Your task to perform on an android device: check storage Image 0: 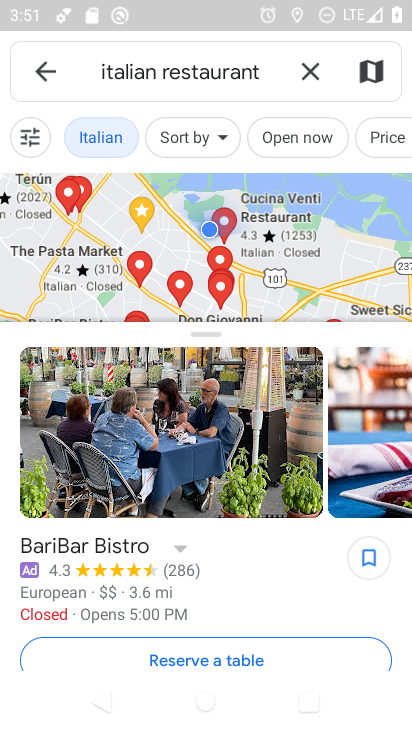
Step 0: press home button
Your task to perform on an android device: check storage Image 1: 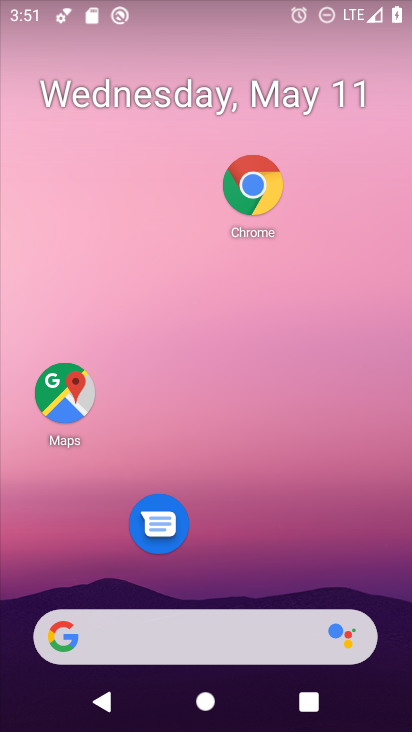
Step 1: drag from (267, 527) to (259, 103)
Your task to perform on an android device: check storage Image 2: 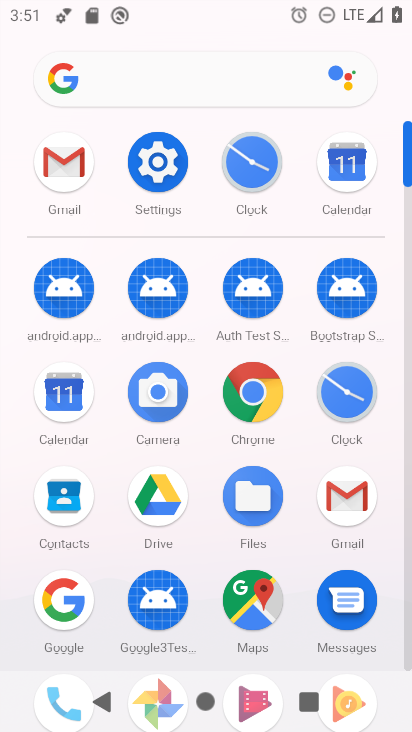
Step 2: click (164, 148)
Your task to perform on an android device: check storage Image 3: 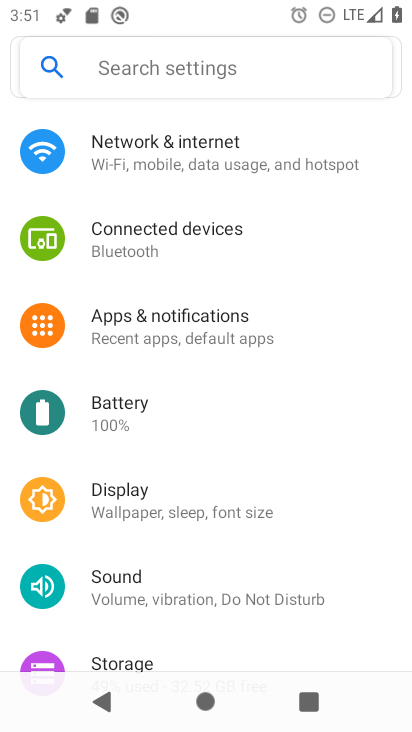
Step 3: drag from (217, 527) to (220, 223)
Your task to perform on an android device: check storage Image 4: 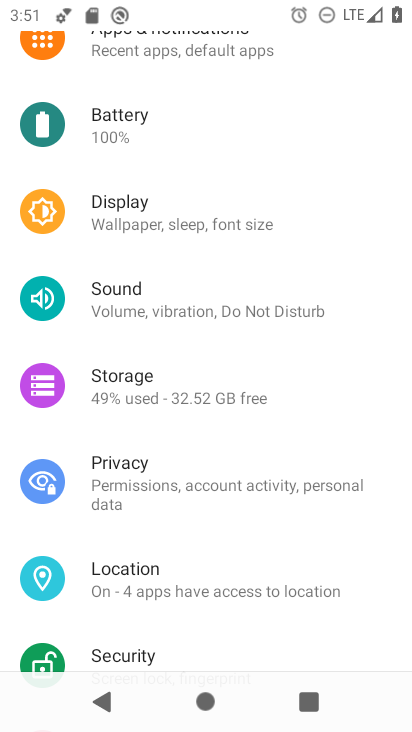
Step 4: click (172, 388)
Your task to perform on an android device: check storage Image 5: 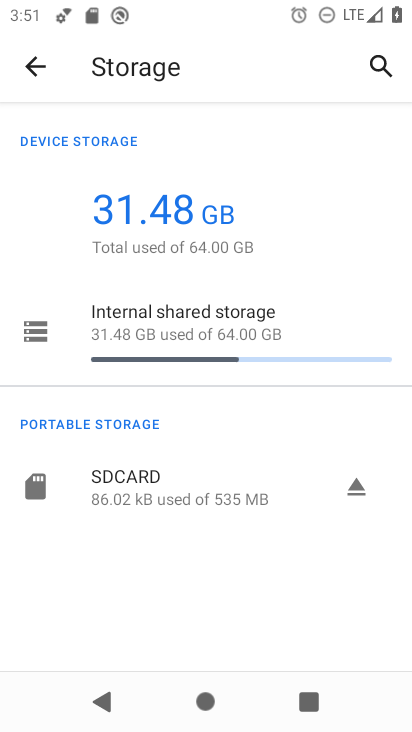
Step 5: task complete